Your task to perform on an android device: open a bookmark in the chrome app Image 0: 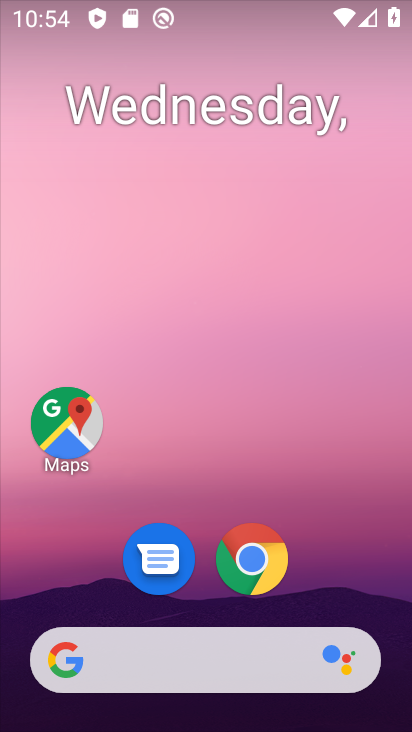
Step 0: press home button
Your task to perform on an android device: open a bookmark in the chrome app Image 1: 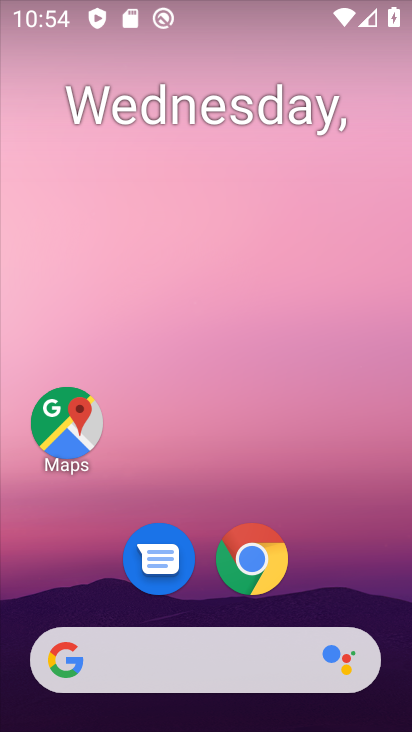
Step 1: click (293, 539)
Your task to perform on an android device: open a bookmark in the chrome app Image 2: 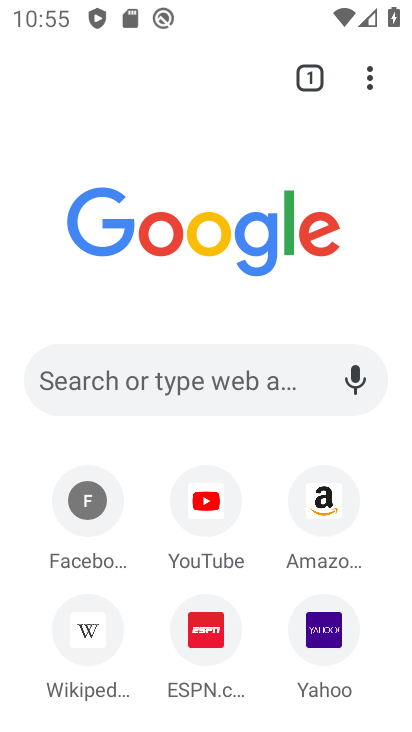
Step 2: click (372, 102)
Your task to perform on an android device: open a bookmark in the chrome app Image 3: 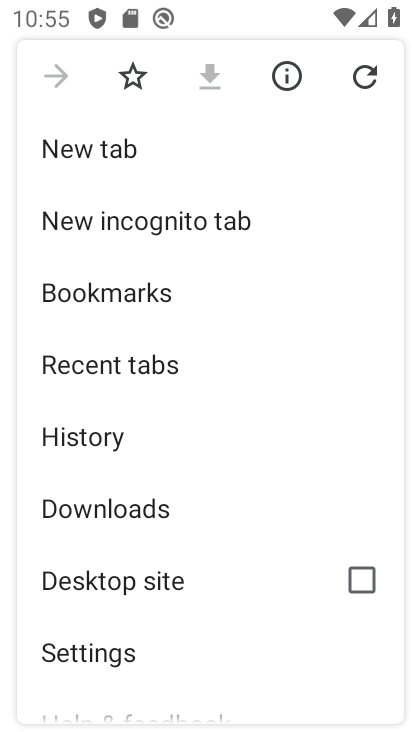
Step 3: click (180, 304)
Your task to perform on an android device: open a bookmark in the chrome app Image 4: 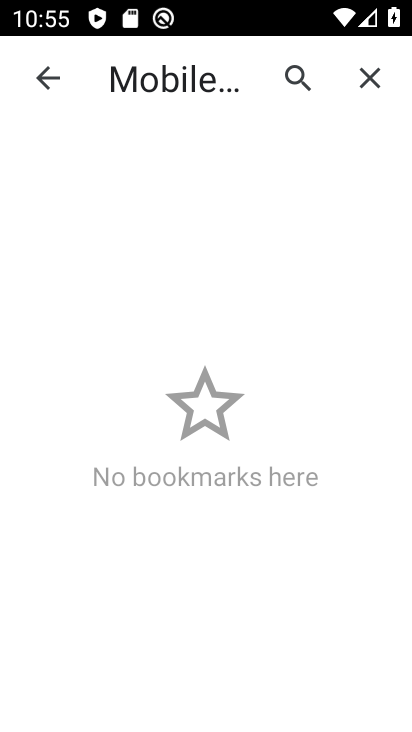
Step 4: task complete